Your task to perform on an android device: See recent photos Image 0: 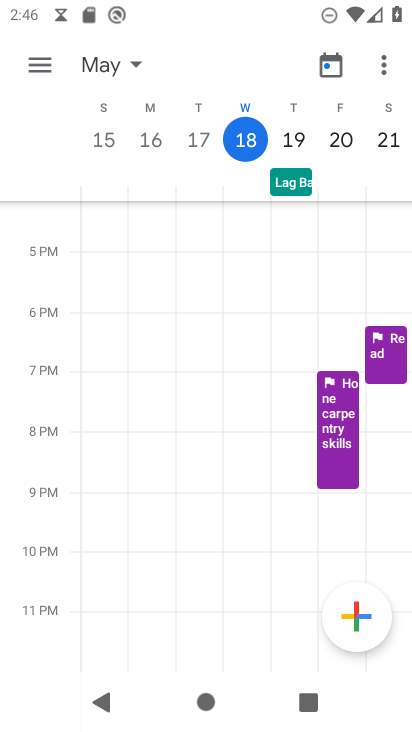
Step 0: press home button
Your task to perform on an android device: See recent photos Image 1: 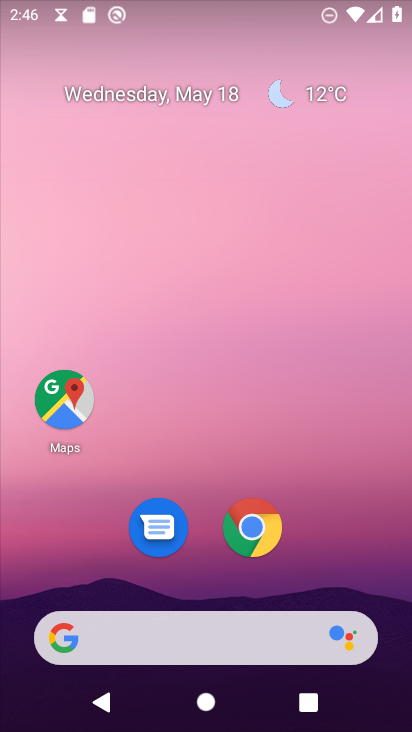
Step 1: drag from (343, 551) to (303, 135)
Your task to perform on an android device: See recent photos Image 2: 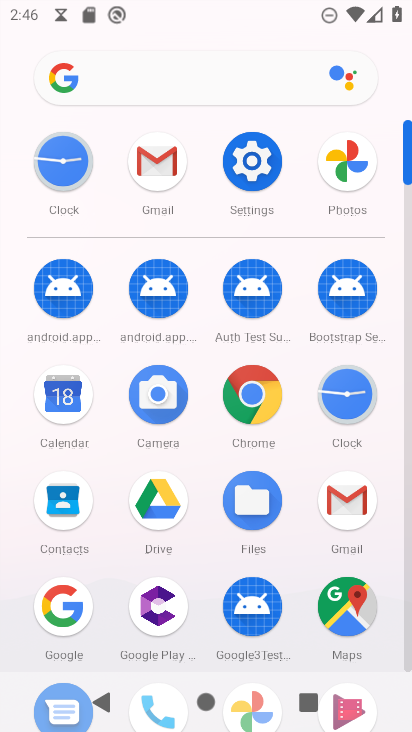
Step 2: drag from (207, 635) to (195, 310)
Your task to perform on an android device: See recent photos Image 3: 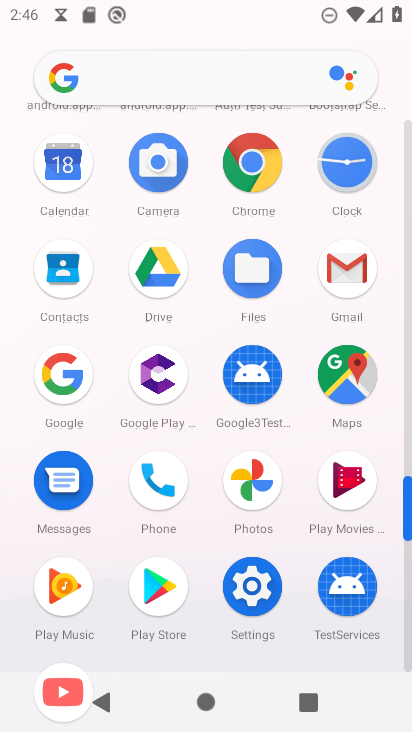
Step 3: click (251, 482)
Your task to perform on an android device: See recent photos Image 4: 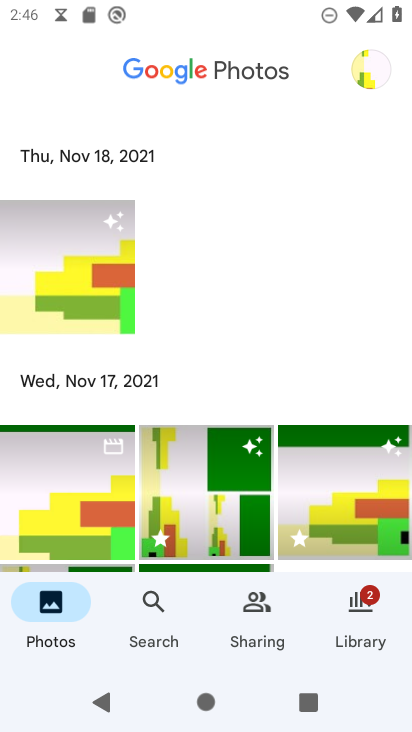
Step 4: click (154, 608)
Your task to perform on an android device: See recent photos Image 5: 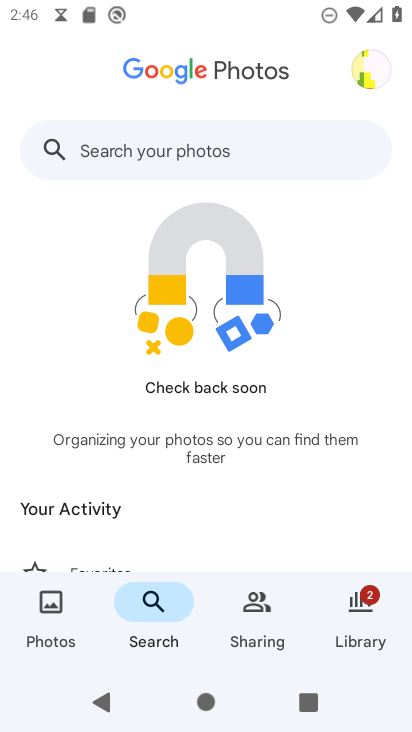
Step 5: click (204, 142)
Your task to perform on an android device: See recent photos Image 6: 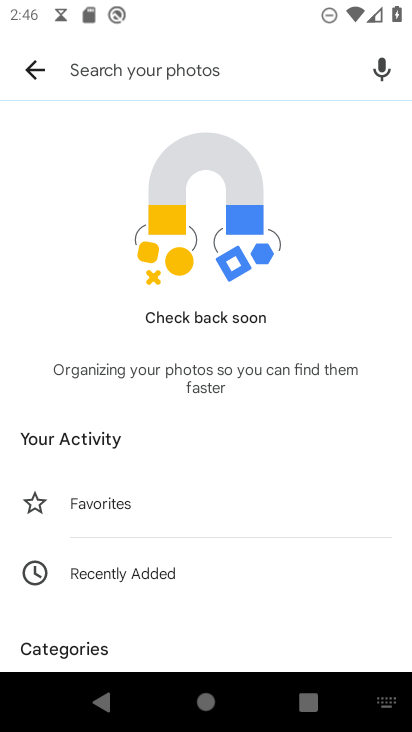
Step 6: click (126, 566)
Your task to perform on an android device: See recent photos Image 7: 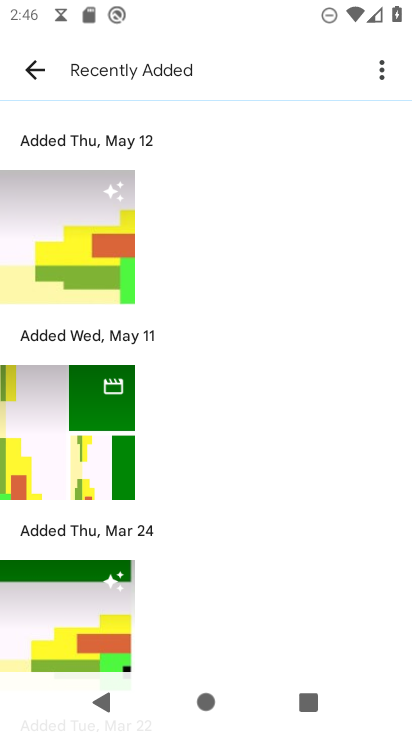
Step 7: task complete